Your task to perform on an android device: Open Yahoo.com Image 0: 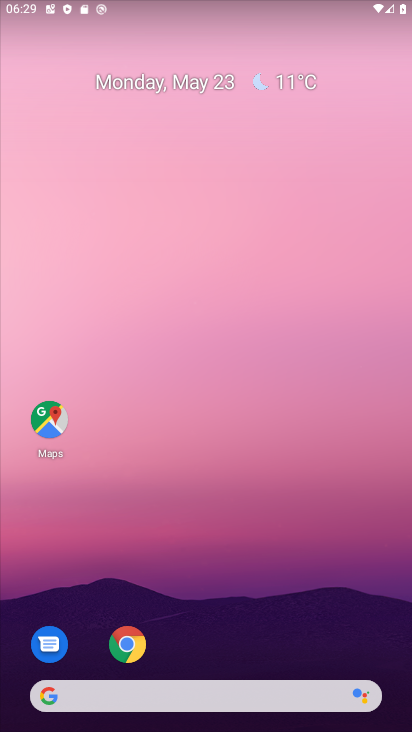
Step 0: click (127, 655)
Your task to perform on an android device: Open Yahoo.com Image 1: 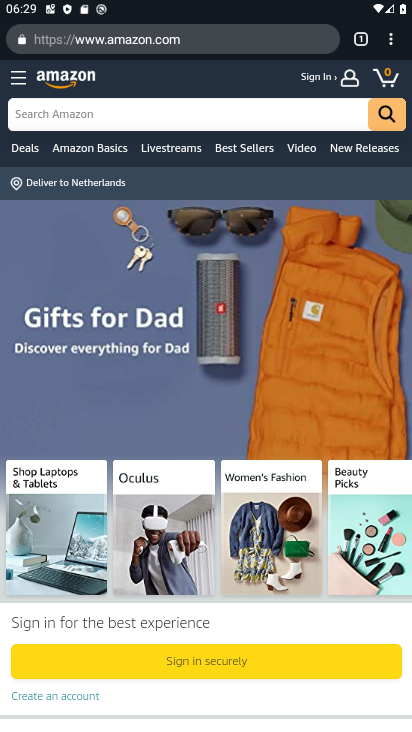
Step 1: press back button
Your task to perform on an android device: Open Yahoo.com Image 2: 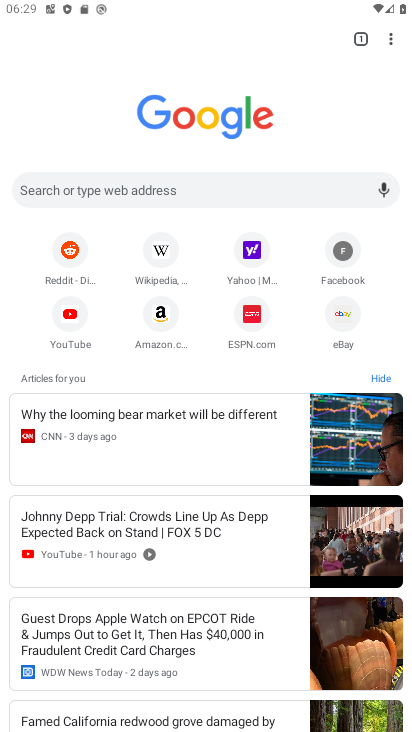
Step 2: click (252, 263)
Your task to perform on an android device: Open Yahoo.com Image 3: 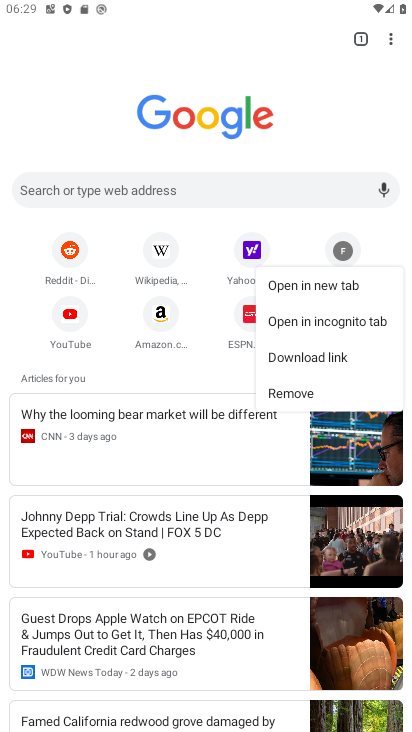
Step 3: click (248, 252)
Your task to perform on an android device: Open Yahoo.com Image 4: 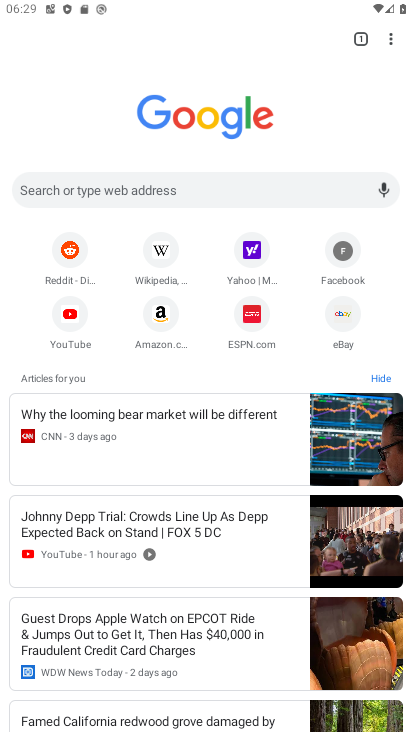
Step 4: click (251, 271)
Your task to perform on an android device: Open Yahoo.com Image 5: 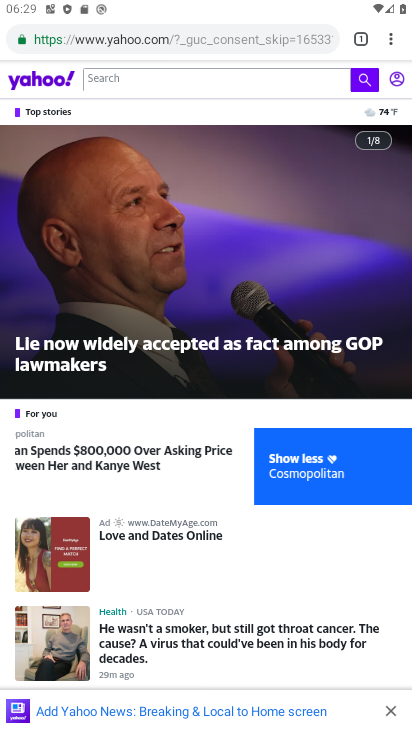
Step 5: task complete